Your task to perform on an android device: add a contact Image 0: 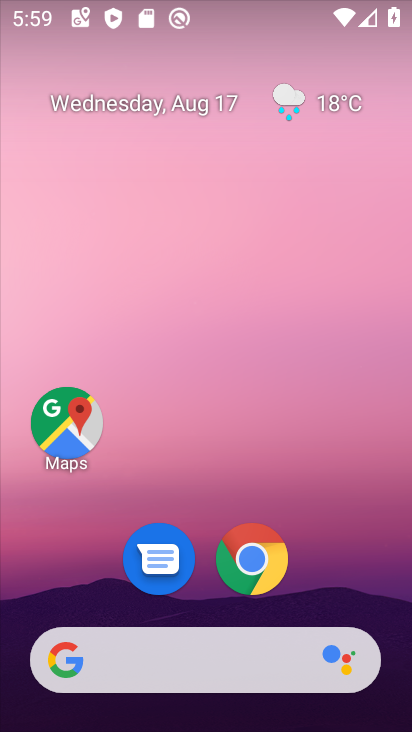
Step 0: drag from (250, 679) to (246, 72)
Your task to perform on an android device: add a contact Image 1: 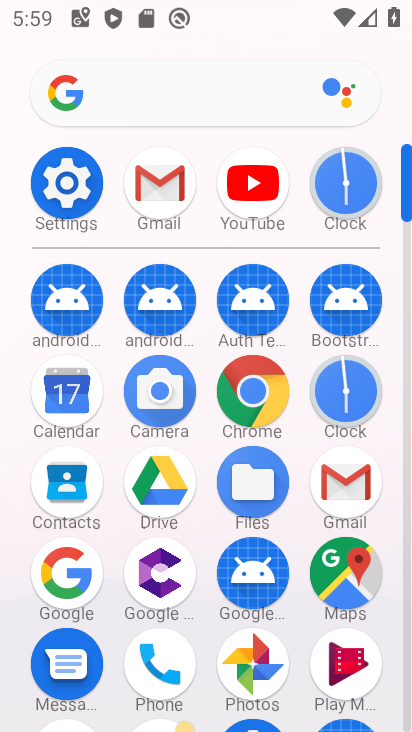
Step 1: click (64, 483)
Your task to perform on an android device: add a contact Image 2: 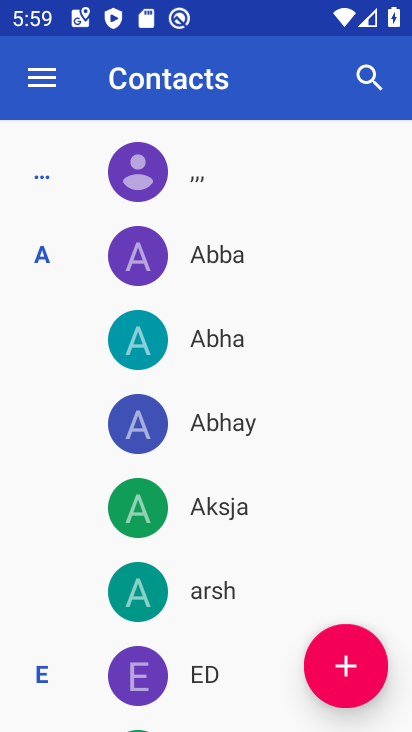
Step 2: drag from (214, 670) to (227, 110)
Your task to perform on an android device: add a contact Image 3: 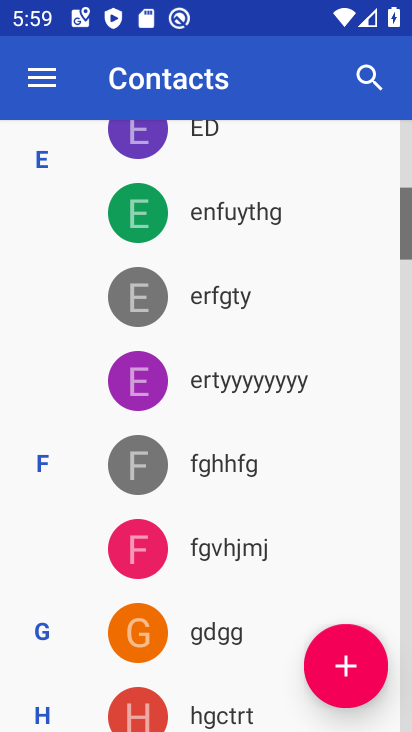
Step 3: click (326, 672)
Your task to perform on an android device: add a contact Image 4: 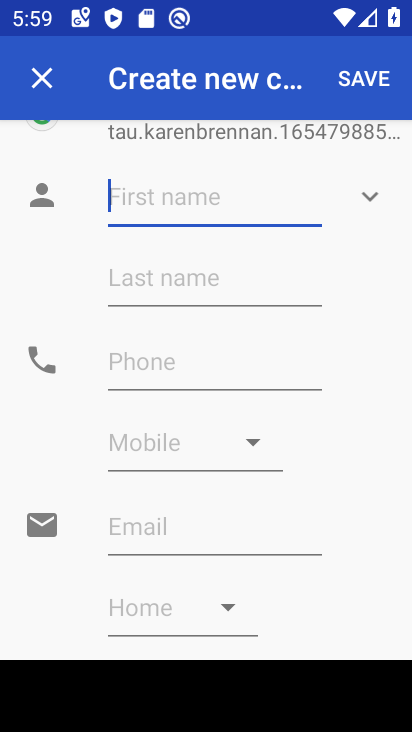
Step 4: type "nsjsdgf"
Your task to perform on an android device: add a contact Image 5: 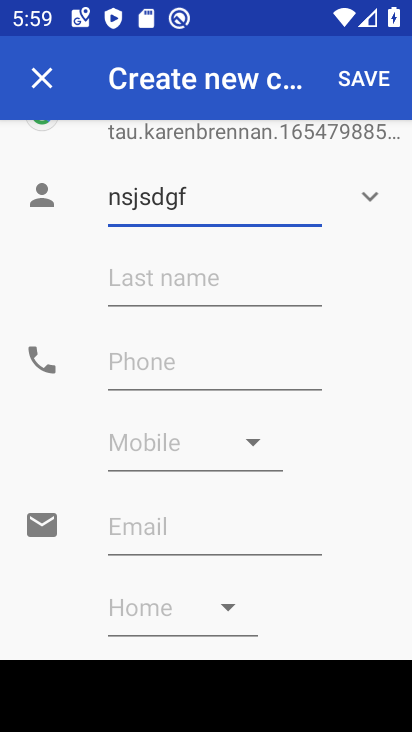
Step 5: click (154, 365)
Your task to perform on an android device: add a contact Image 6: 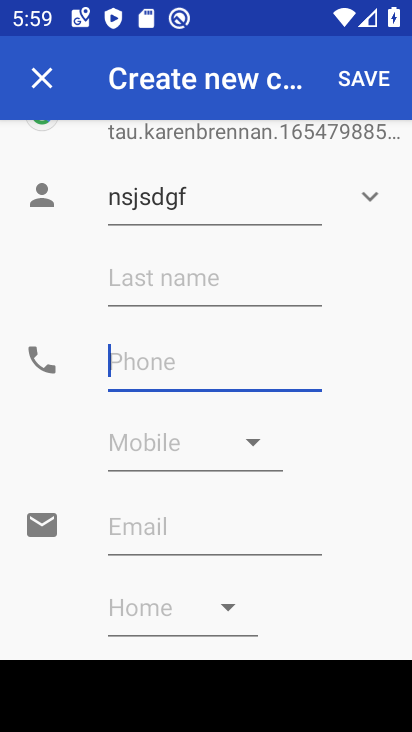
Step 6: type "89738434"
Your task to perform on an android device: add a contact Image 7: 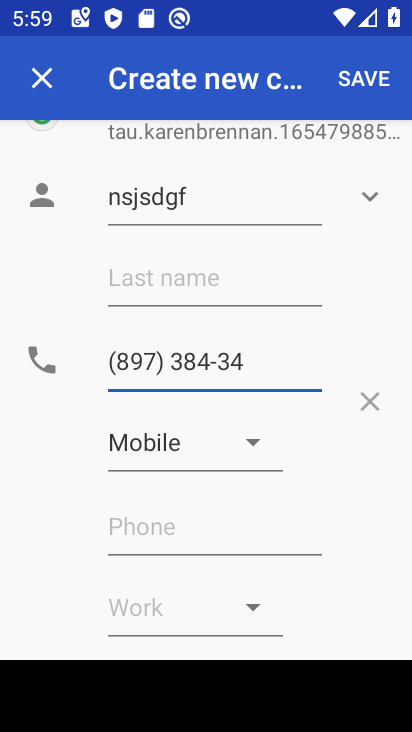
Step 7: click (361, 73)
Your task to perform on an android device: add a contact Image 8: 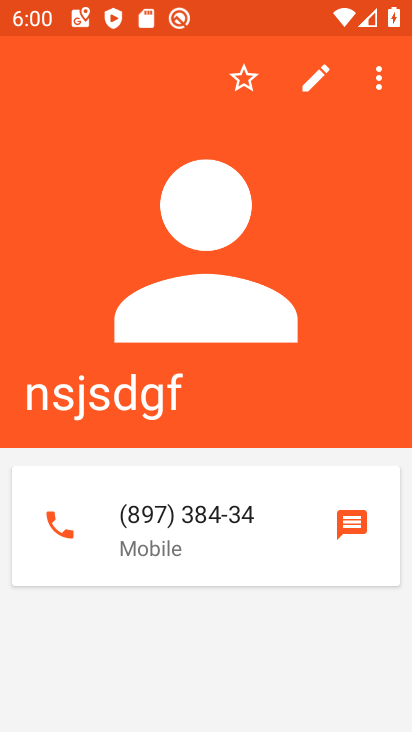
Step 8: task complete